Your task to perform on an android device: Go to Android settings Image 0: 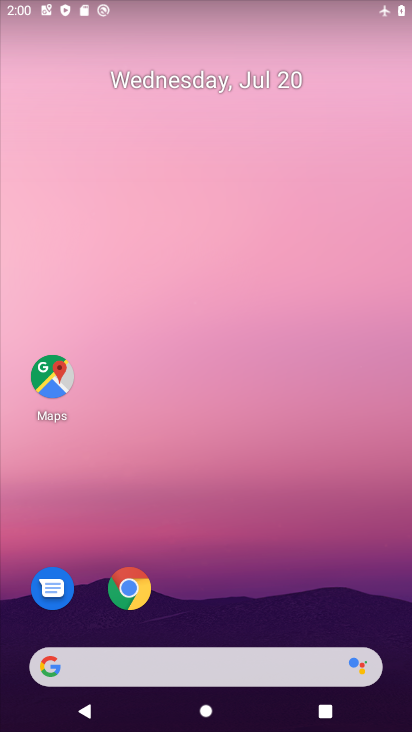
Step 0: drag from (218, 505) to (260, 77)
Your task to perform on an android device: Go to Android settings Image 1: 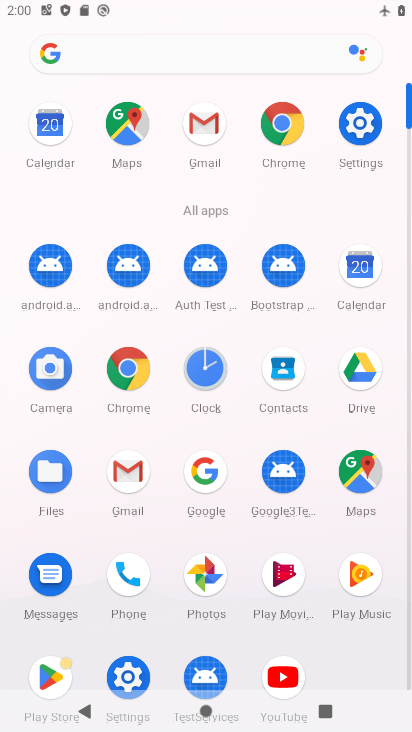
Step 1: click (359, 133)
Your task to perform on an android device: Go to Android settings Image 2: 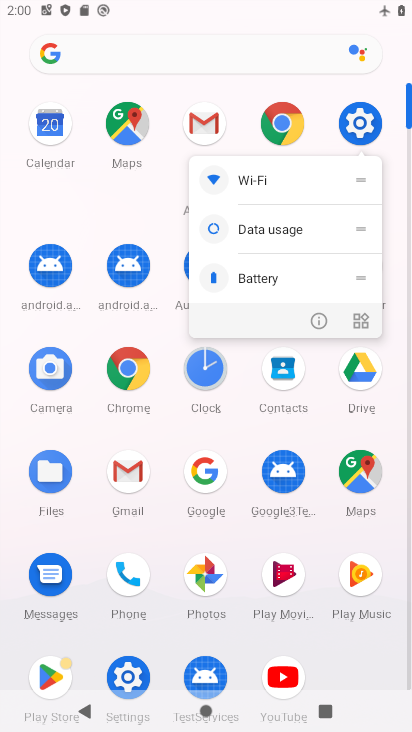
Step 2: click (359, 133)
Your task to perform on an android device: Go to Android settings Image 3: 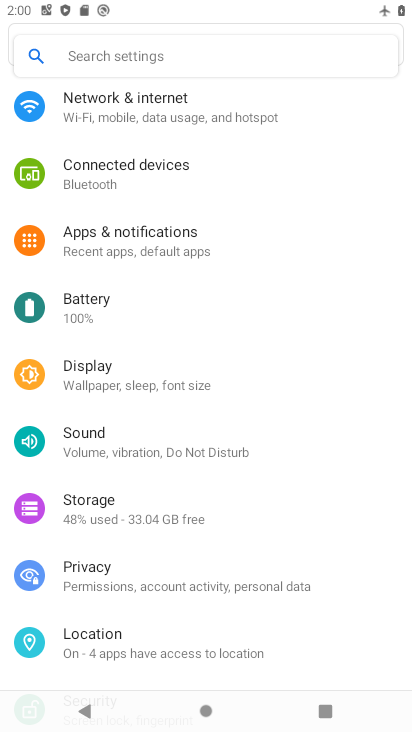
Step 3: task complete